Your task to perform on an android device: turn on airplane mode Image 0: 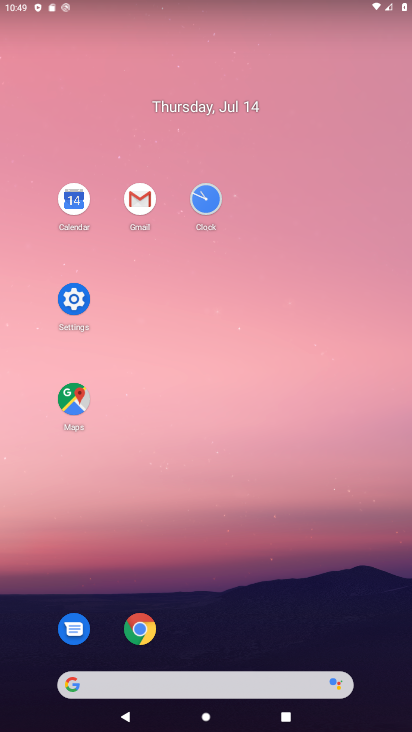
Step 0: click (71, 297)
Your task to perform on an android device: turn on airplane mode Image 1: 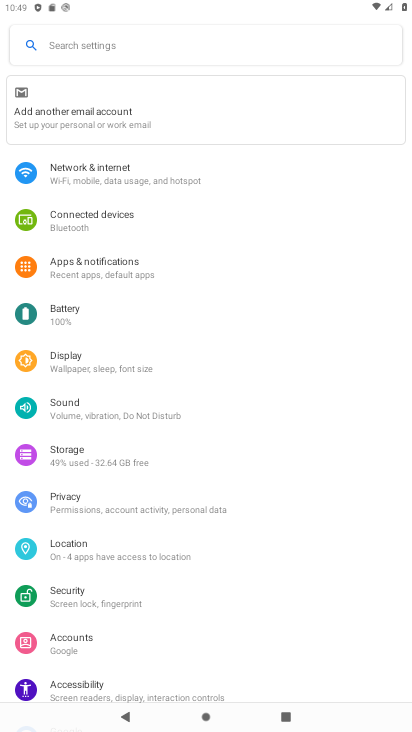
Step 1: click (186, 188)
Your task to perform on an android device: turn on airplane mode Image 2: 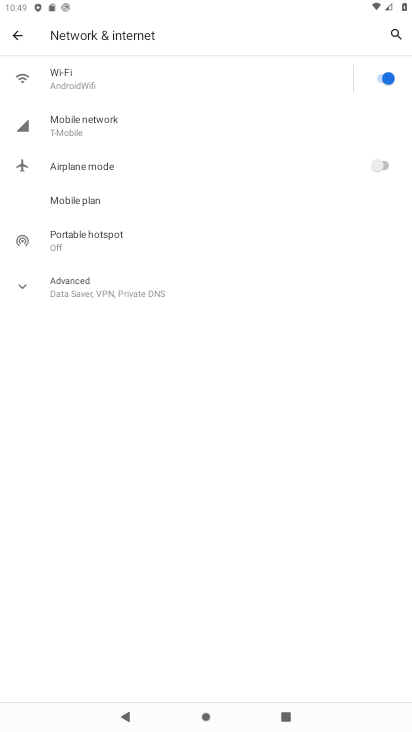
Step 2: click (368, 165)
Your task to perform on an android device: turn on airplane mode Image 3: 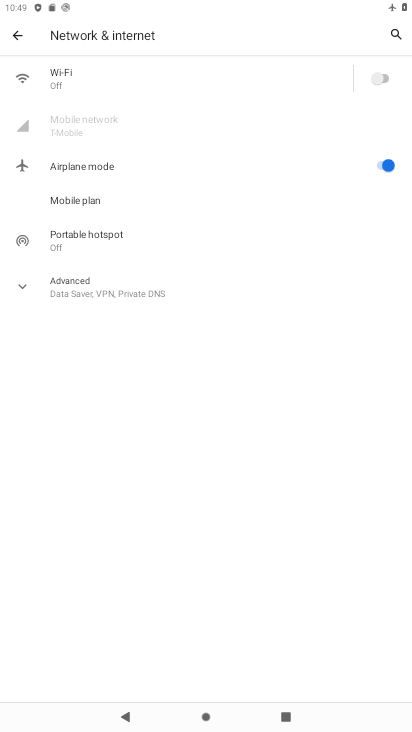
Step 3: task complete